Your task to perform on an android device: Open notification settings Image 0: 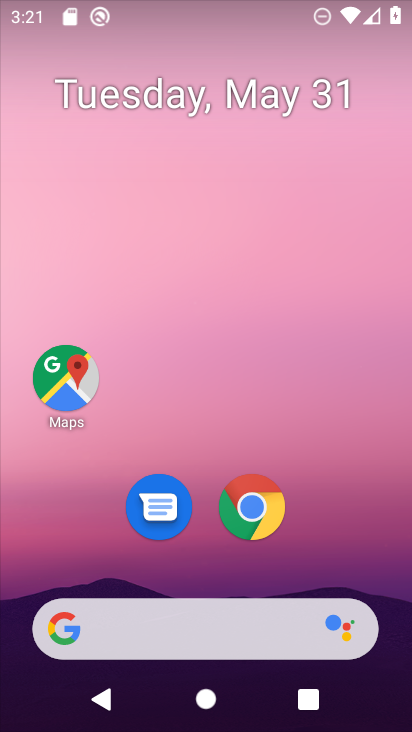
Step 0: drag from (159, 674) to (122, 46)
Your task to perform on an android device: Open notification settings Image 1: 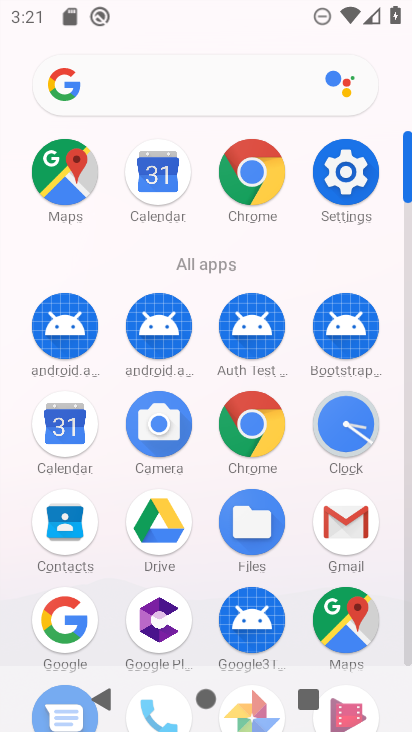
Step 1: click (354, 188)
Your task to perform on an android device: Open notification settings Image 2: 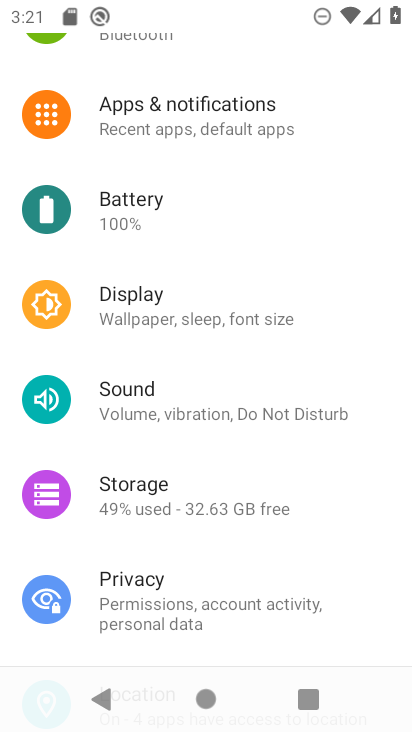
Step 2: click (216, 140)
Your task to perform on an android device: Open notification settings Image 3: 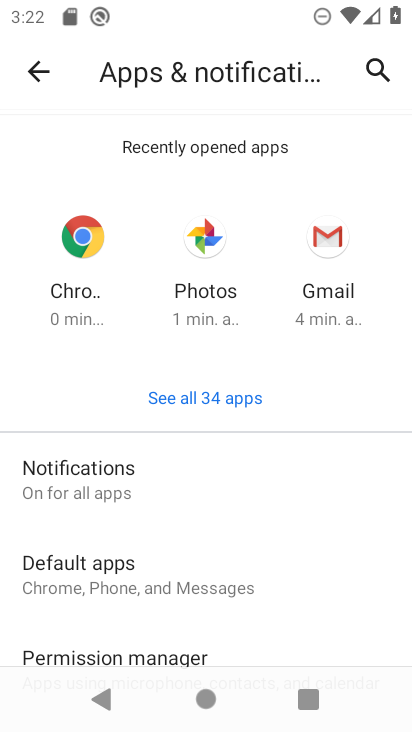
Step 3: task complete